Your task to perform on an android device: see creations saved in the google photos Image 0: 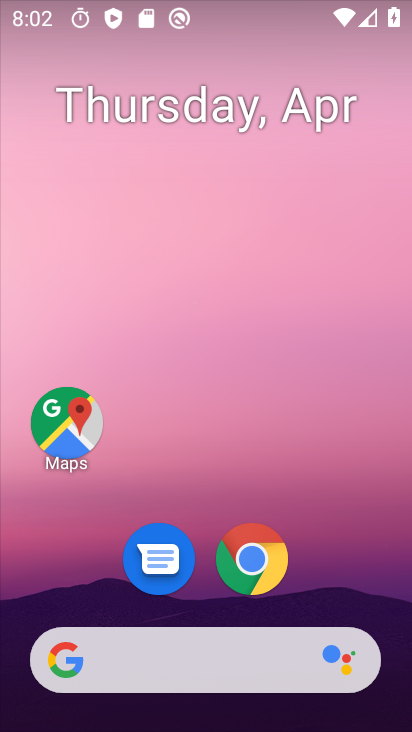
Step 0: drag from (279, 688) to (188, 20)
Your task to perform on an android device: see creations saved in the google photos Image 1: 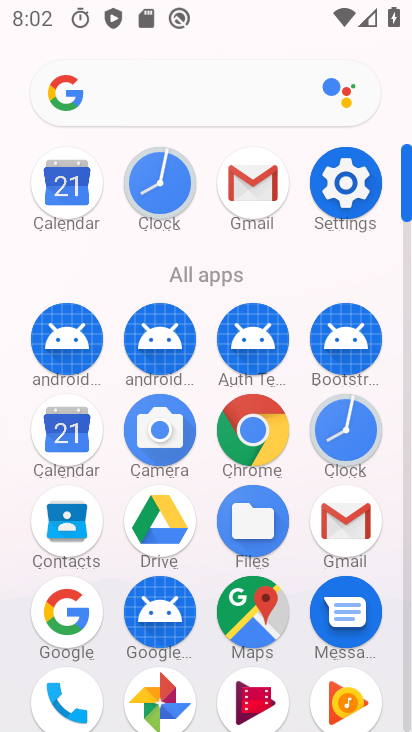
Step 1: click (168, 688)
Your task to perform on an android device: see creations saved in the google photos Image 2: 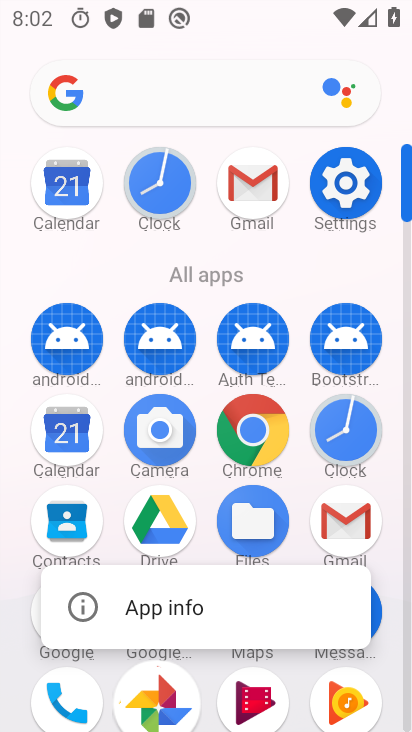
Step 2: click (166, 688)
Your task to perform on an android device: see creations saved in the google photos Image 3: 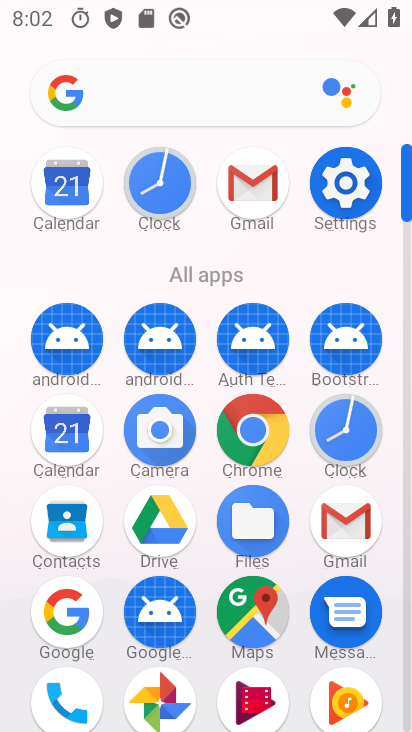
Step 3: click (164, 681)
Your task to perform on an android device: see creations saved in the google photos Image 4: 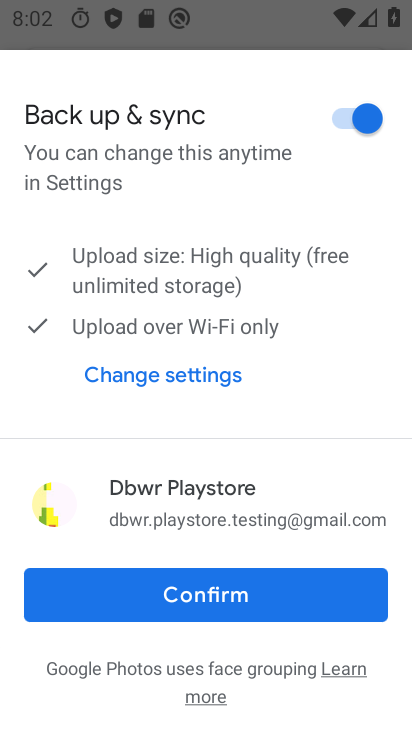
Step 4: click (234, 594)
Your task to perform on an android device: see creations saved in the google photos Image 5: 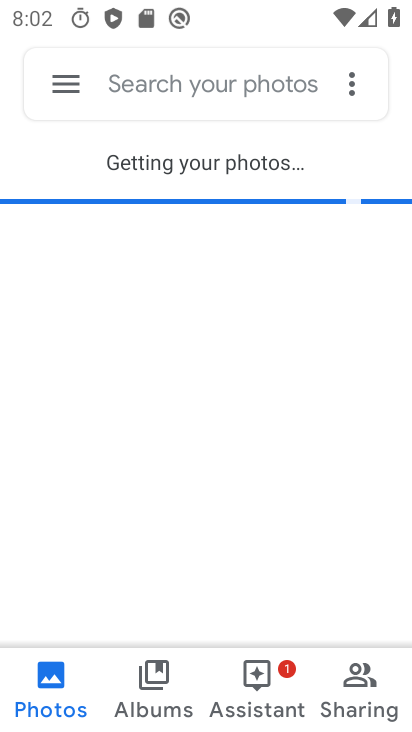
Step 5: click (58, 668)
Your task to perform on an android device: see creations saved in the google photos Image 6: 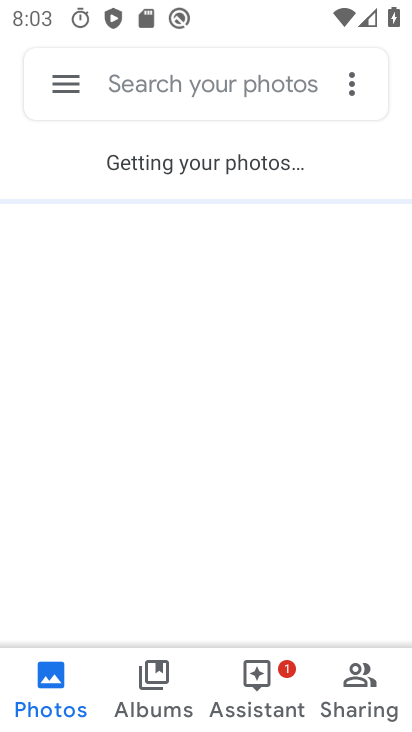
Step 6: click (57, 675)
Your task to perform on an android device: see creations saved in the google photos Image 7: 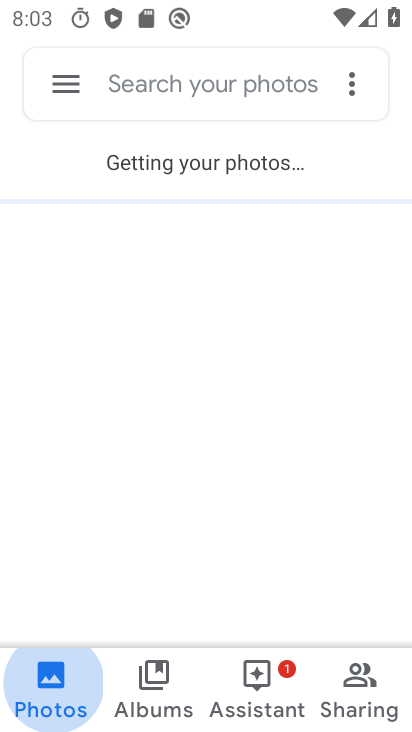
Step 7: click (58, 674)
Your task to perform on an android device: see creations saved in the google photos Image 8: 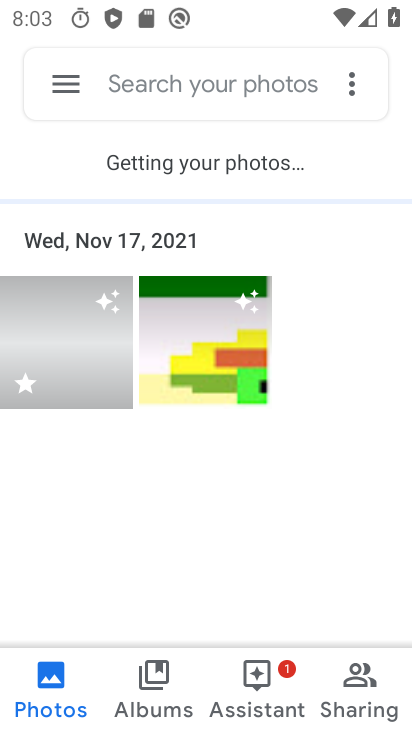
Step 8: click (54, 700)
Your task to perform on an android device: see creations saved in the google photos Image 9: 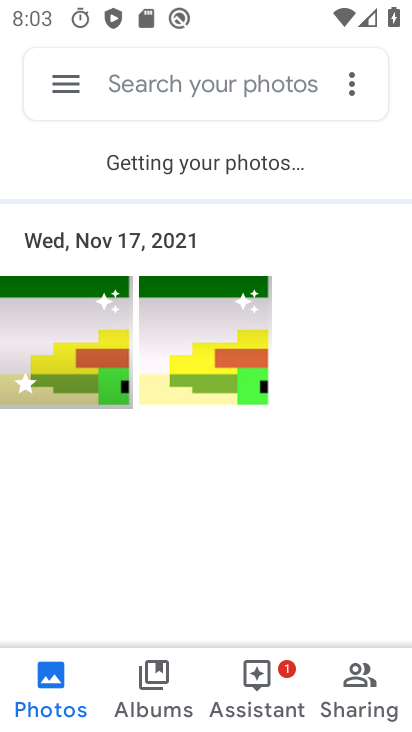
Step 9: task complete